Your task to perform on an android device: toggle location history Image 0: 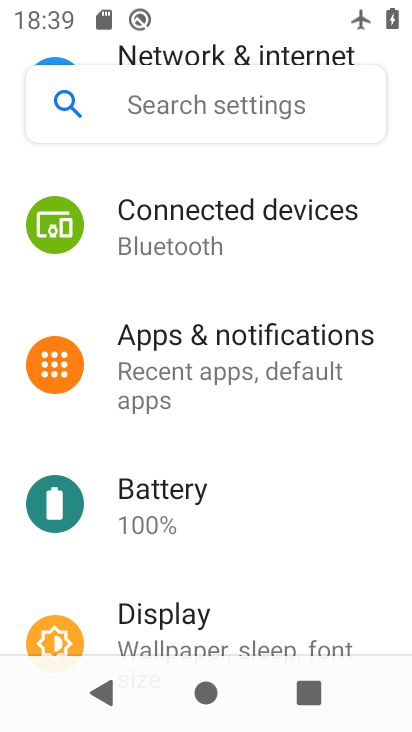
Step 0: press home button
Your task to perform on an android device: toggle location history Image 1: 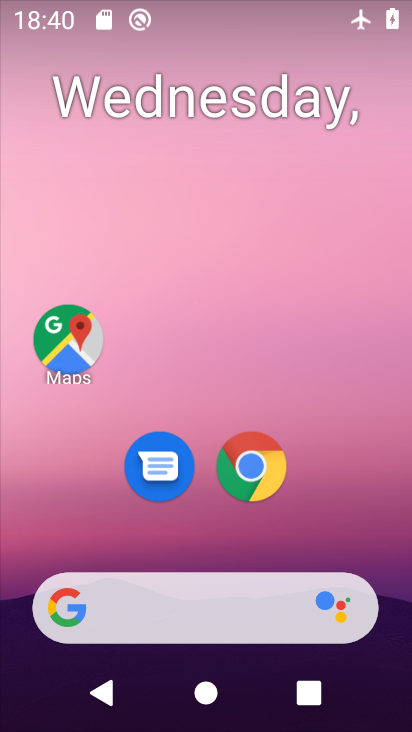
Step 1: drag from (328, 491) to (169, 7)
Your task to perform on an android device: toggle location history Image 2: 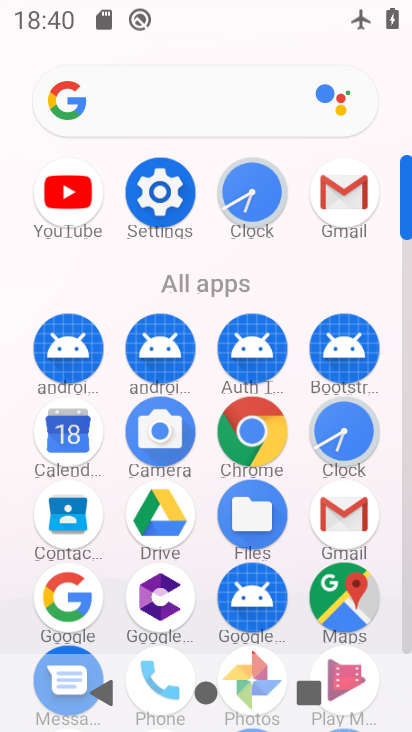
Step 2: click (334, 598)
Your task to perform on an android device: toggle location history Image 3: 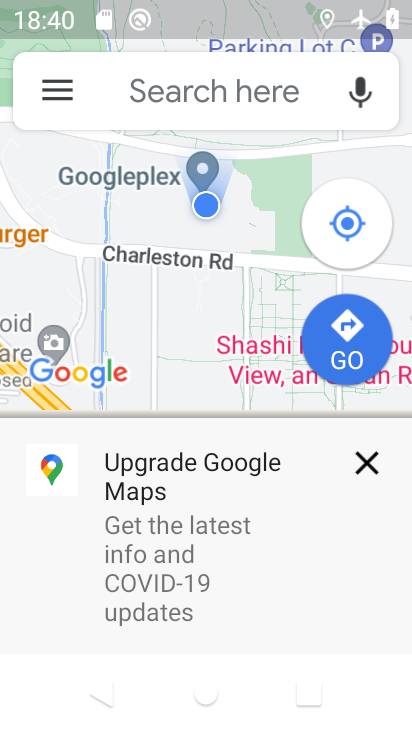
Step 3: click (43, 80)
Your task to perform on an android device: toggle location history Image 4: 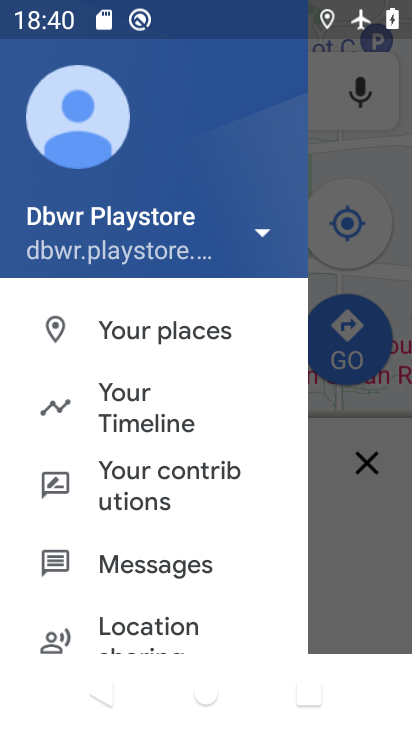
Step 4: click (133, 389)
Your task to perform on an android device: toggle location history Image 5: 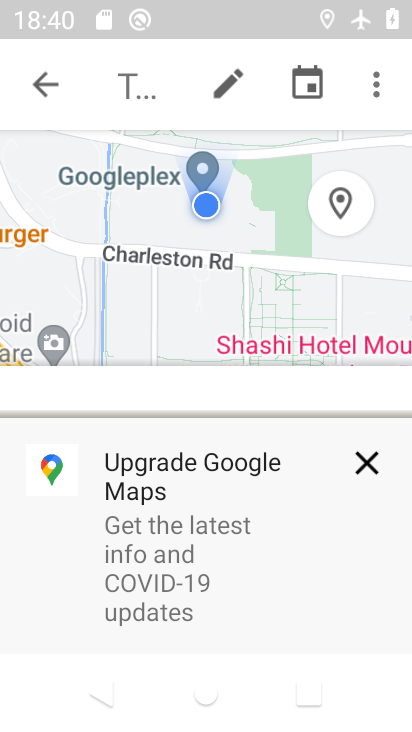
Step 5: click (373, 79)
Your task to perform on an android device: toggle location history Image 6: 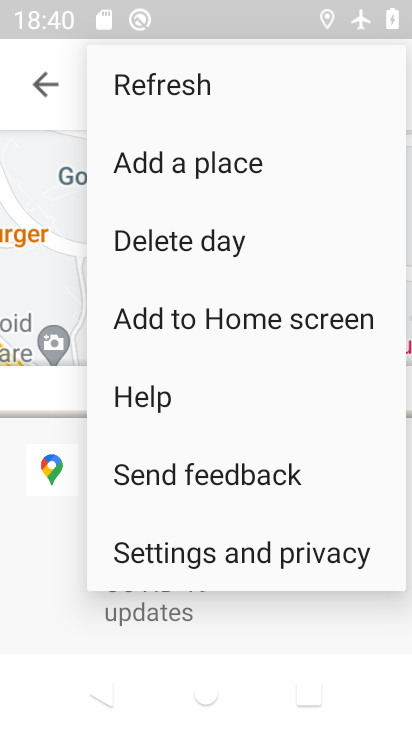
Step 6: click (238, 545)
Your task to perform on an android device: toggle location history Image 7: 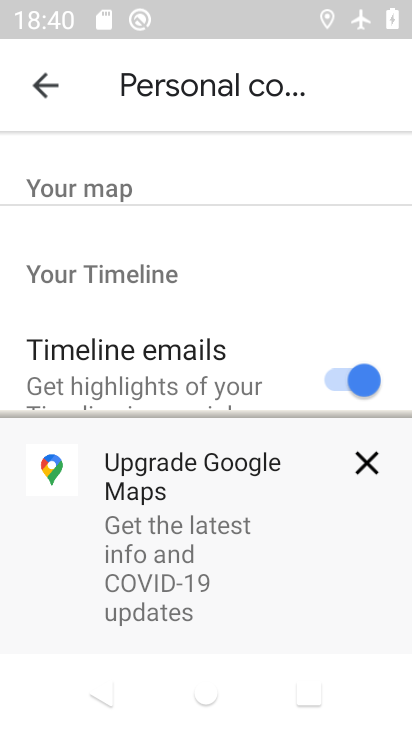
Step 7: click (370, 464)
Your task to perform on an android device: toggle location history Image 8: 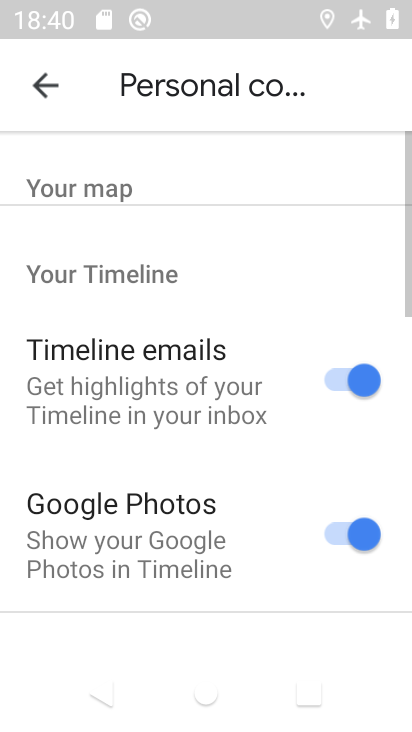
Step 8: drag from (283, 455) to (259, 183)
Your task to perform on an android device: toggle location history Image 9: 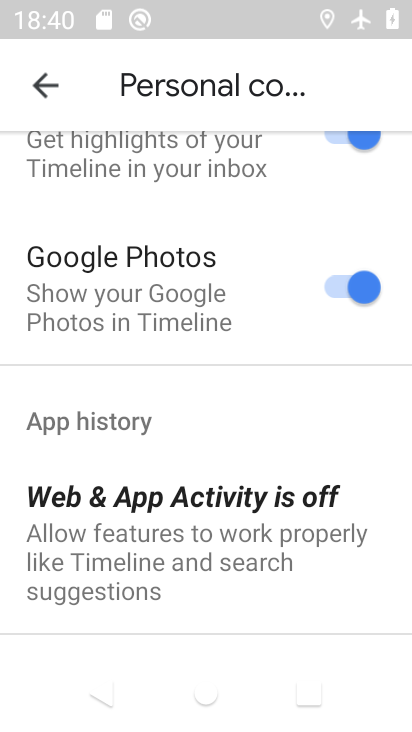
Step 9: drag from (235, 405) to (197, 111)
Your task to perform on an android device: toggle location history Image 10: 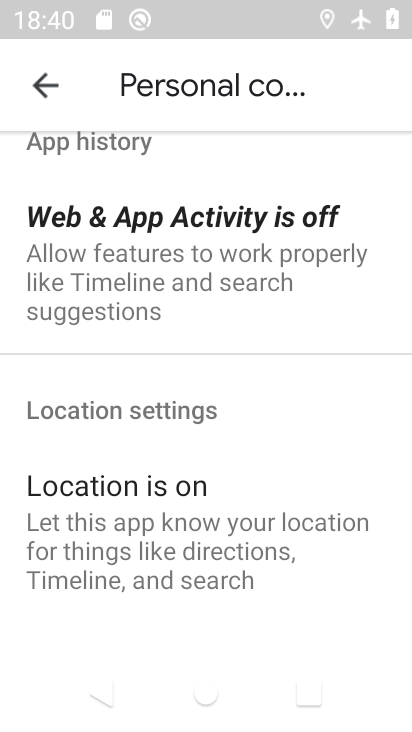
Step 10: drag from (223, 430) to (191, 101)
Your task to perform on an android device: toggle location history Image 11: 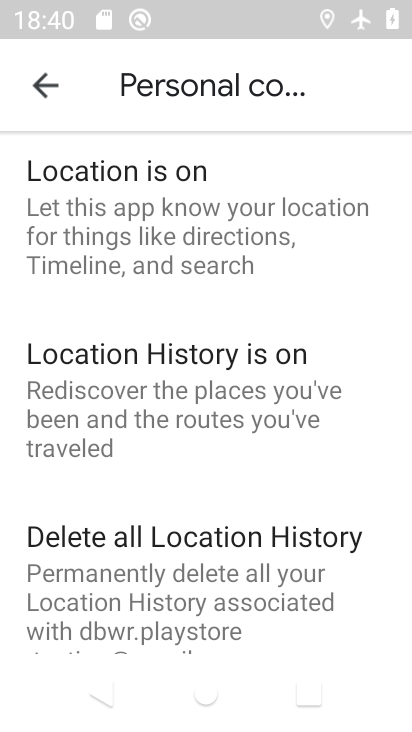
Step 11: click (179, 353)
Your task to perform on an android device: toggle location history Image 12: 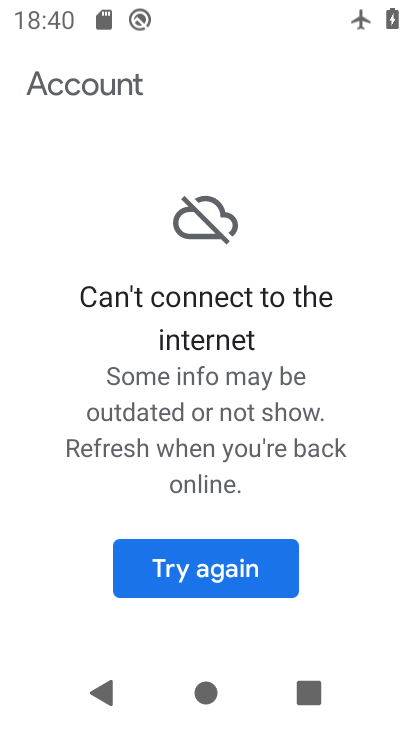
Step 12: task complete